Your task to perform on an android device: Clear the shopping cart on bestbuy.com. Search for razer blade on bestbuy.com, select the first entry, and add it to the cart. Image 0: 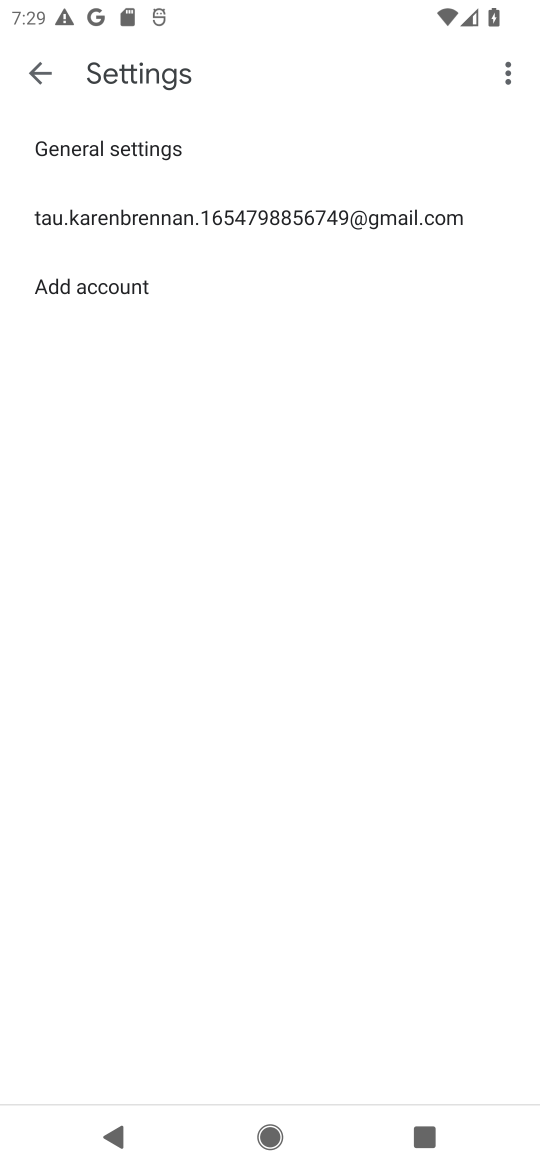
Step 0: press home button
Your task to perform on an android device: Clear the shopping cart on bestbuy.com. Search for razer blade on bestbuy.com, select the first entry, and add it to the cart. Image 1: 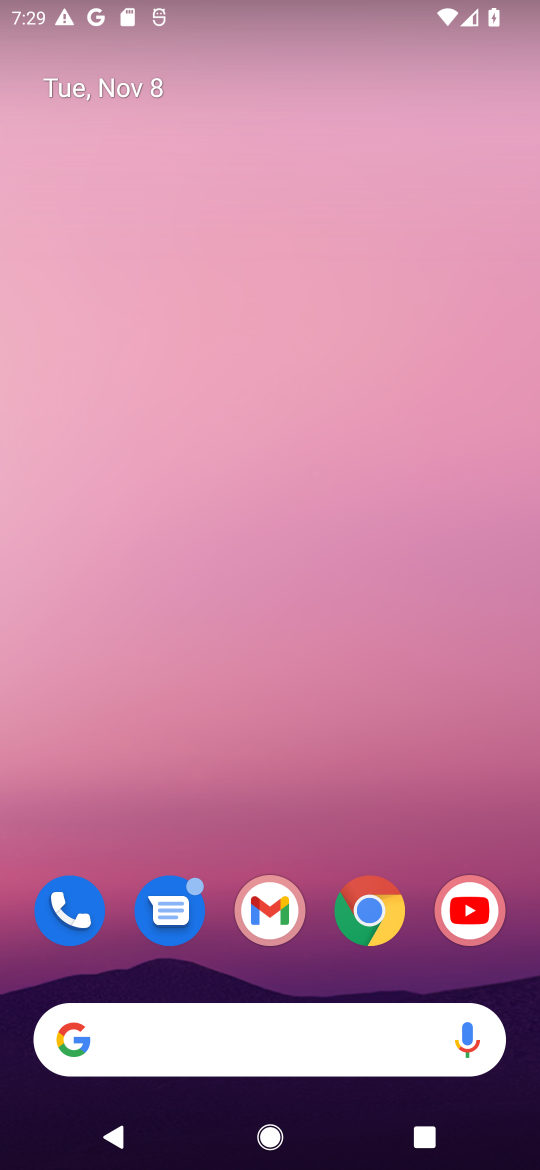
Step 1: click (367, 918)
Your task to perform on an android device: Clear the shopping cart on bestbuy.com. Search for razer blade on bestbuy.com, select the first entry, and add it to the cart. Image 2: 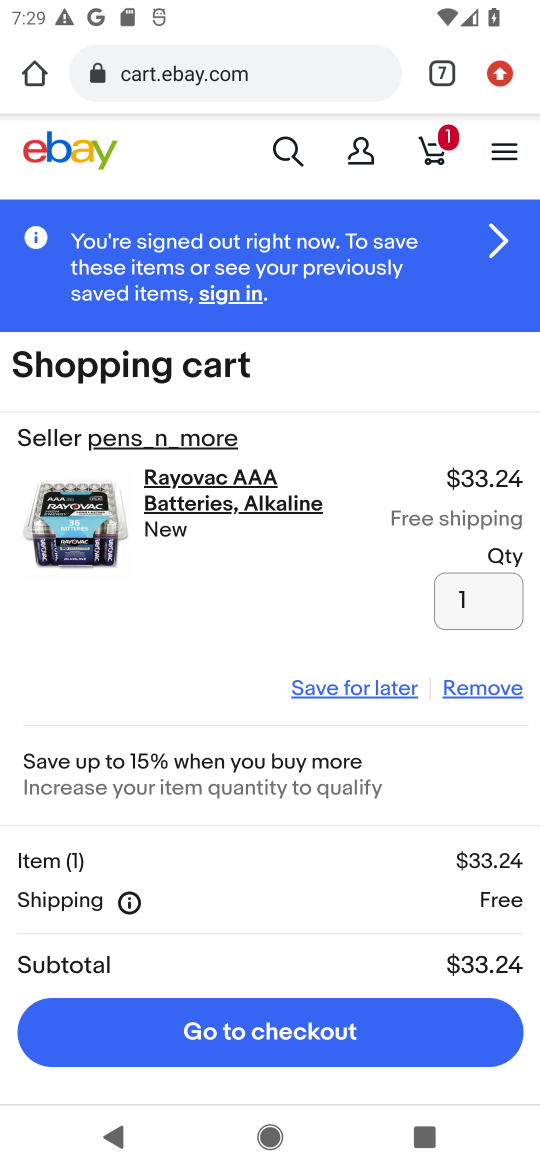
Step 2: click (438, 71)
Your task to perform on an android device: Clear the shopping cart on bestbuy.com. Search for razer blade on bestbuy.com, select the first entry, and add it to the cart. Image 3: 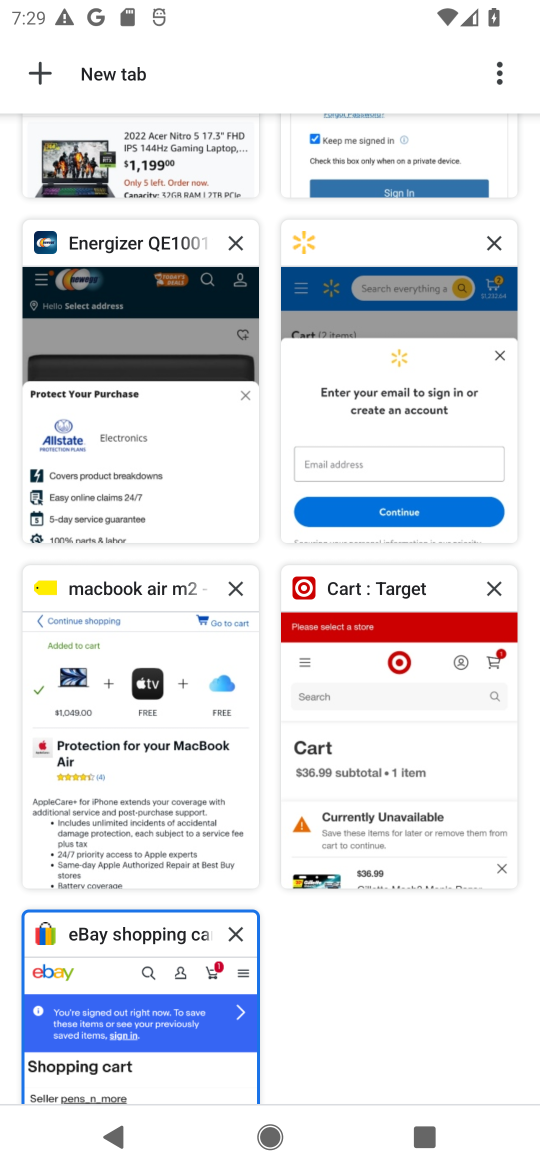
Step 3: click (166, 744)
Your task to perform on an android device: Clear the shopping cart on bestbuy.com. Search for razer blade on bestbuy.com, select the first entry, and add it to the cart. Image 4: 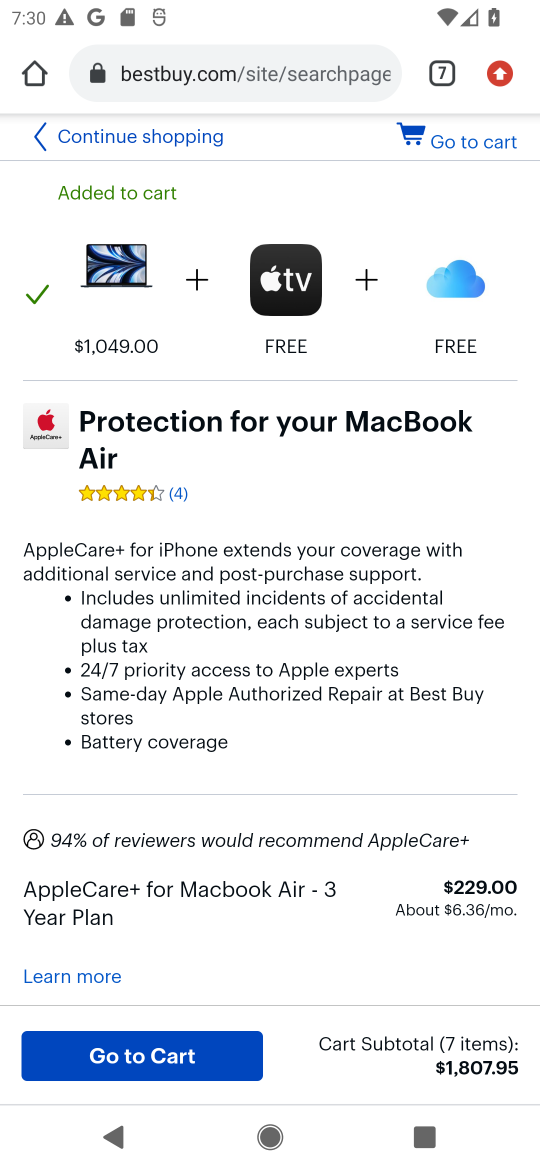
Step 4: click (189, 127)
Your task to perform on an android device: Clear the shopping cart on bestbuy.com. Search for razer blade on bestbuy.com, select the first entry, and add it to the cart. Image 5: 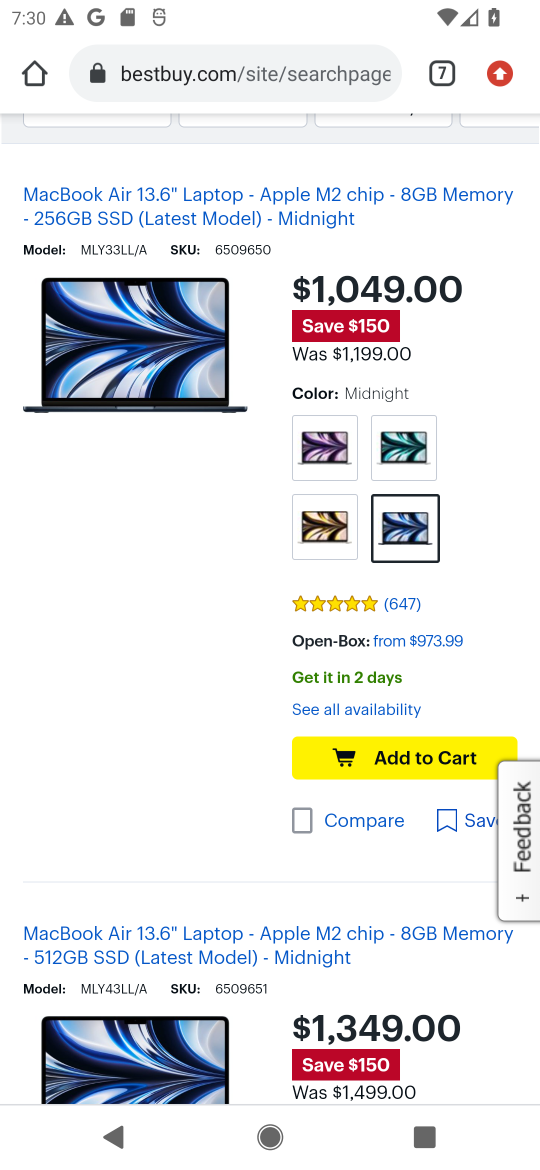
Step 5: drag from (409, 236) to (362, 794)
Your task to perform on an android device: Clear the shopping cart on bestbuy.com. Search for razer blade on bestbuy.com, select the first entry, and add it to the cart. Image 6: 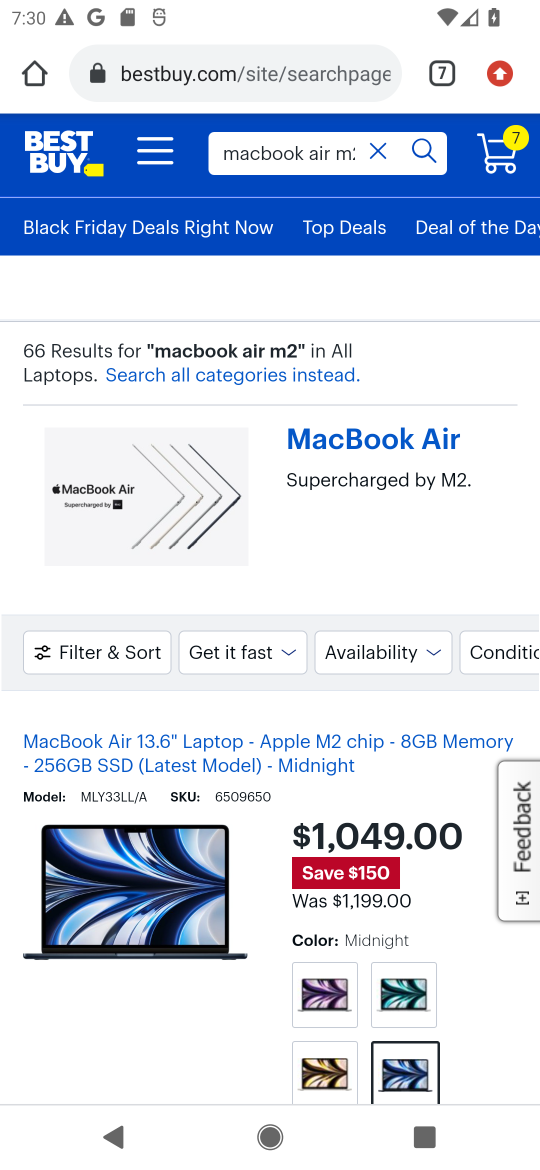
Step 6: click (379, 152)
Your task to perform on an android device: Clear the shopping cart on bestbuy.com. Search for razer blade on bestbuy.com, select the first entry, and add it to the cart. Image 7: 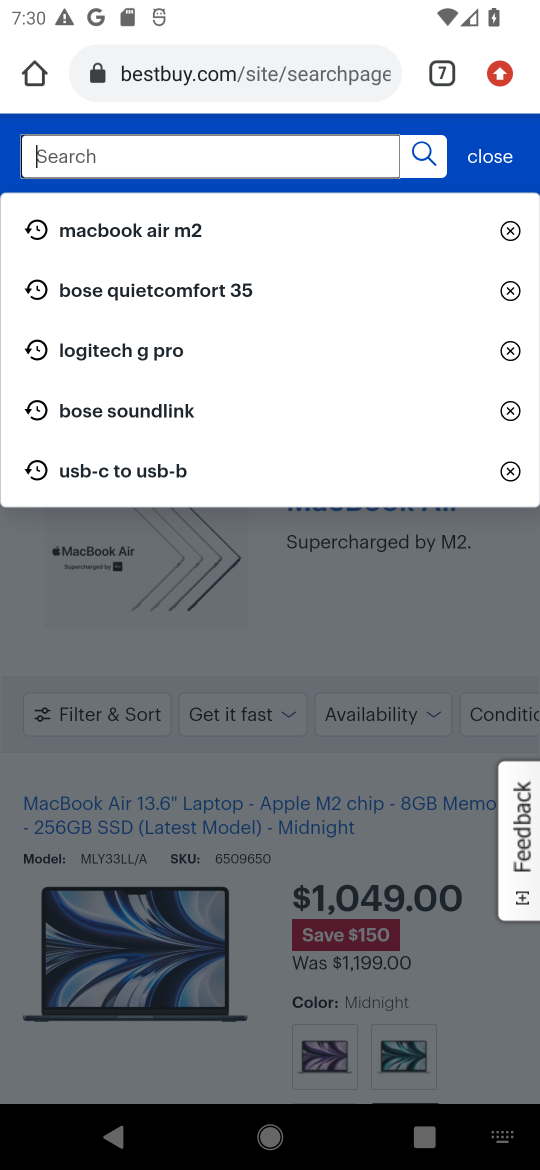
Step 7: type "razer blade"
Your task to perform on an android device: Clear the shopping cart on bestbuy.com. Search for razer blade on bestbuy.com, select the first entry, and add it to the cart. Image 8: 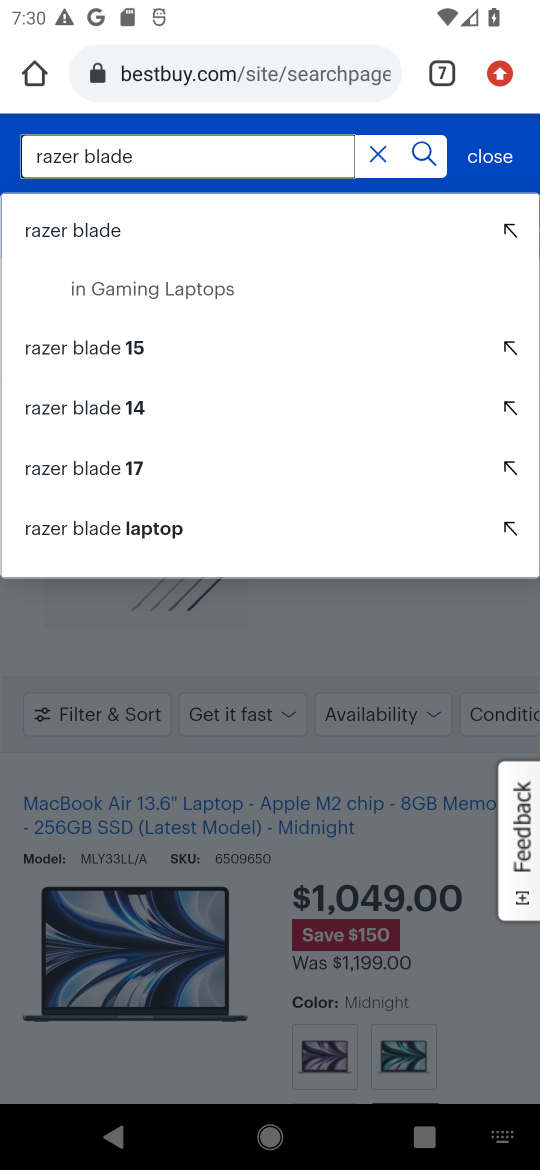
Step 8: click (95, 228)
Your task to perform on an android device: Clear the shopping cart on bestbuy.com. Search for razer blade on bestbuy.com, select the first entry, and add it to the cart. Image 9: 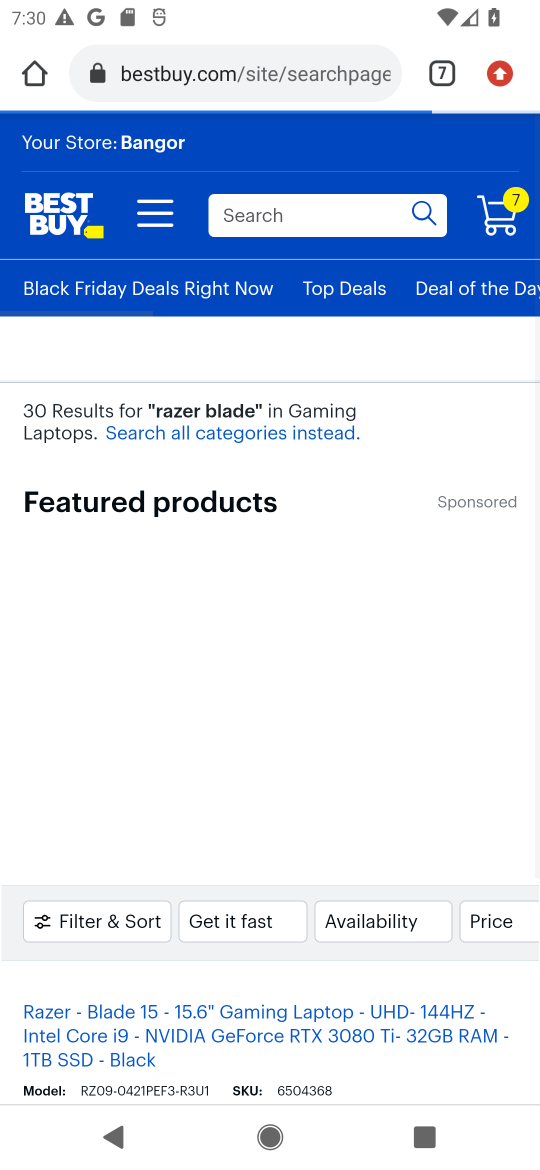
Step 9: click (423, 149)
Your task to perform on an android device: Clear the shopping cart on bestbuy.com. Search for razer blade on bestbuy.com, select the first entry, and add it to the cart. Image 10: 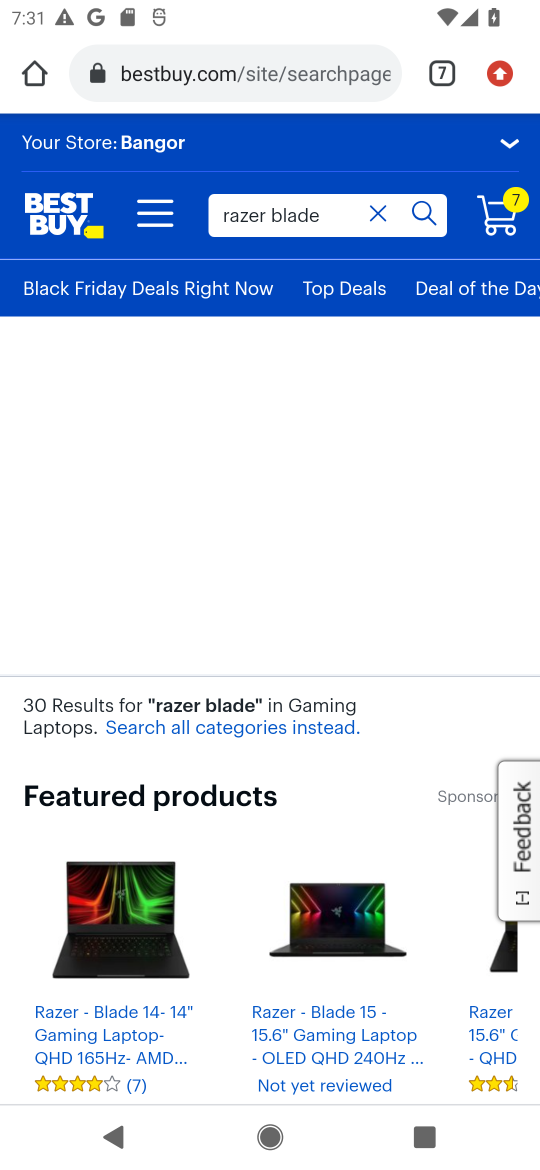
Step 10: click (158, 1014)
Your task to perform on an android device: Clear the shopping cart on bestbuy.com. Search for razer blade on bestbuy.com, select the first entry, and add it to the cart. Image 11: 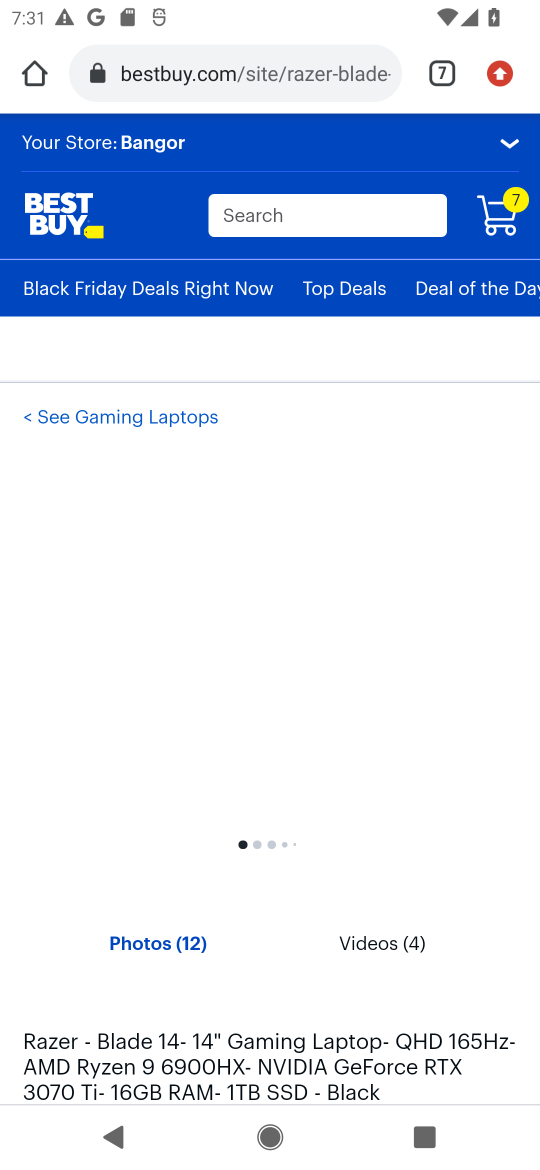
Step 11: drag from (230, 900) to (341, 421)
Your task to perform on an android device: Clear the shopping cart on bestbuy.com. Search for razer blade on bestbuy.com, select the first entry, and add it to the cart. Image 12: 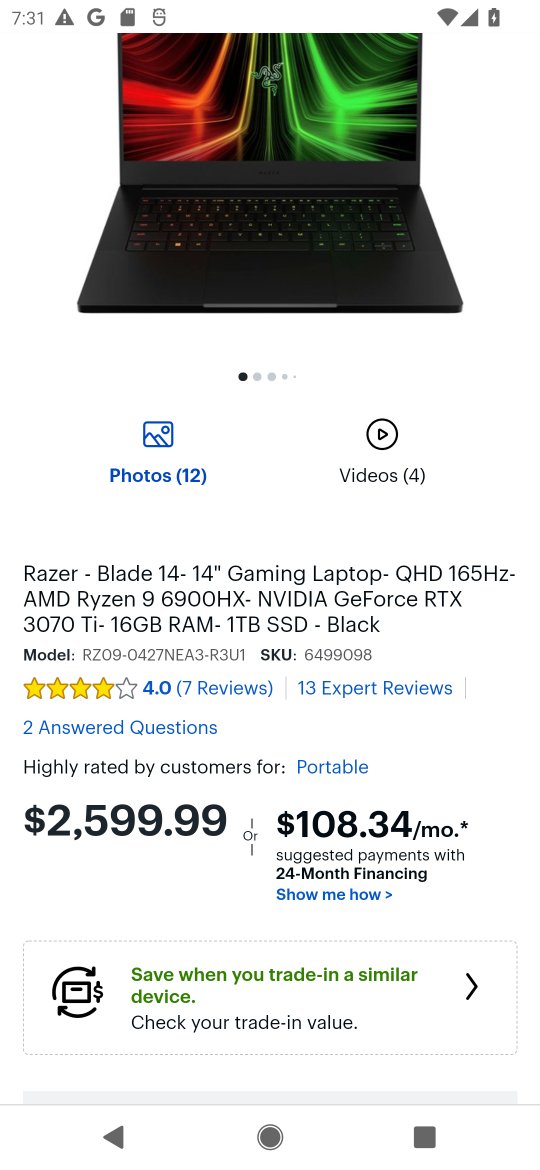
Step 12: drag from (384, 1044) to (434, 571)
Your task to perform on an android device: Clear the shopping cart on bestbuy.com. Search for razer blade on bestbuy.com, select the first entry, and add it to the cart. Image 13: 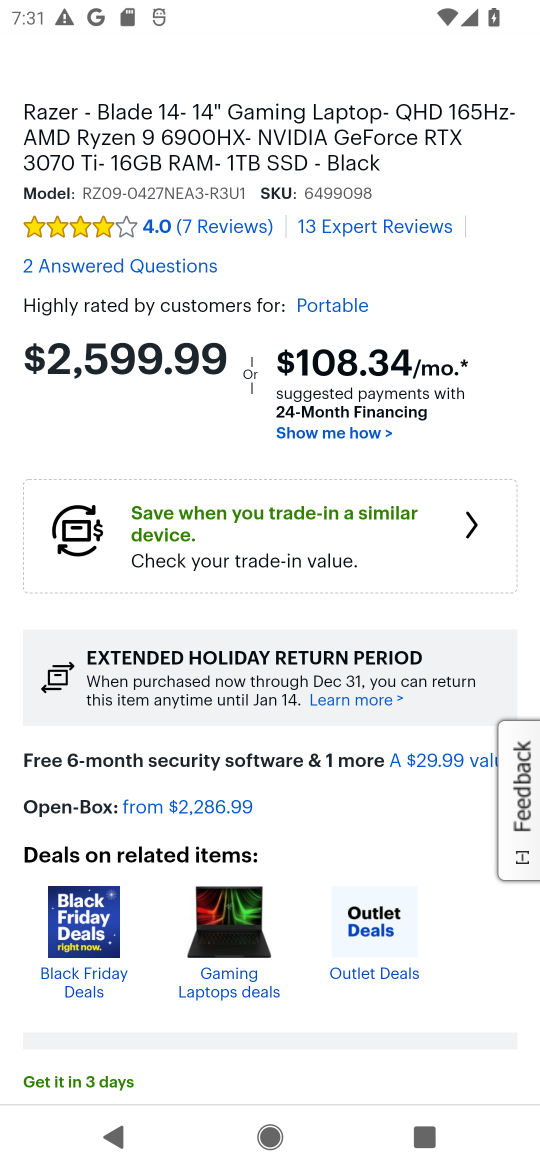
Step 13: drag from (353, 830) to (438, 383)
Your task to perform on an android device: Clear the shopping cart on bestbuy.com. Search for razer blade on bestbuy.com, select the first entry, and add it to the cart. Image 14: 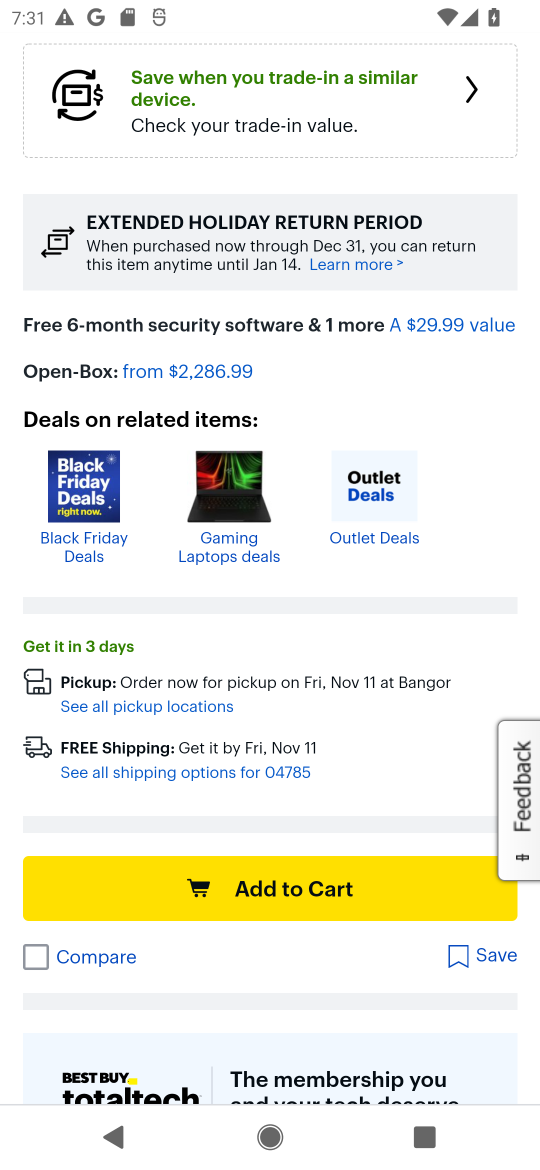
Step 14: click (321, 902)
Your task to perform on an android device: Clear the shopping cart on bestbuy.com. Search for razer blade on bestbuy.com, select the first entry, and add it to the cart. Image 15: 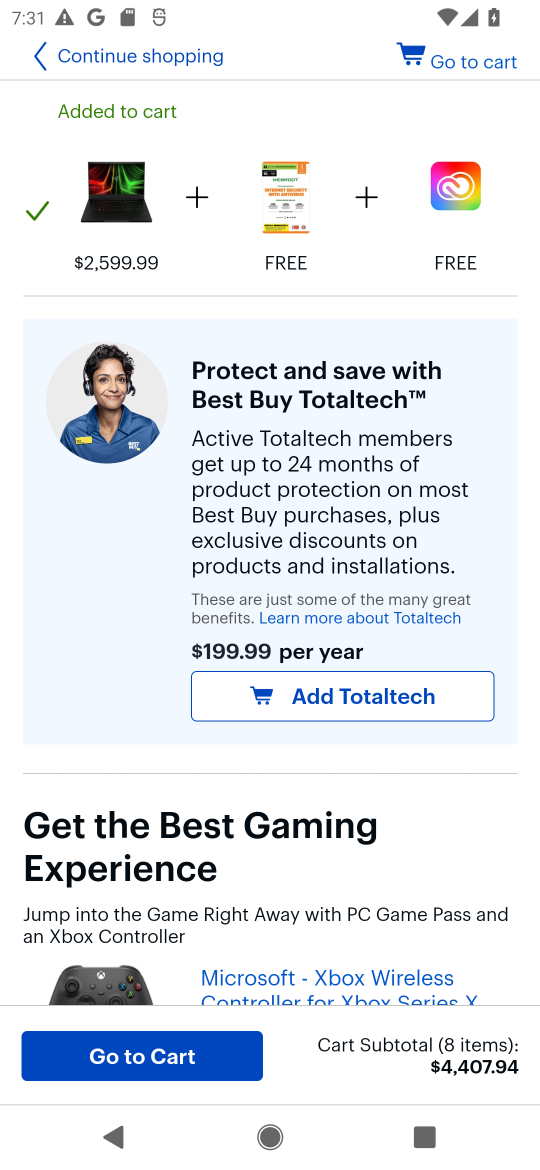
Step 15: click (215, 1063)
Your task to perform on an android device: Clear the shopping cart on bestbuy.com. Search for razer blade on bestbuy.com, select the first entry, and add it to the cart. Image 16: 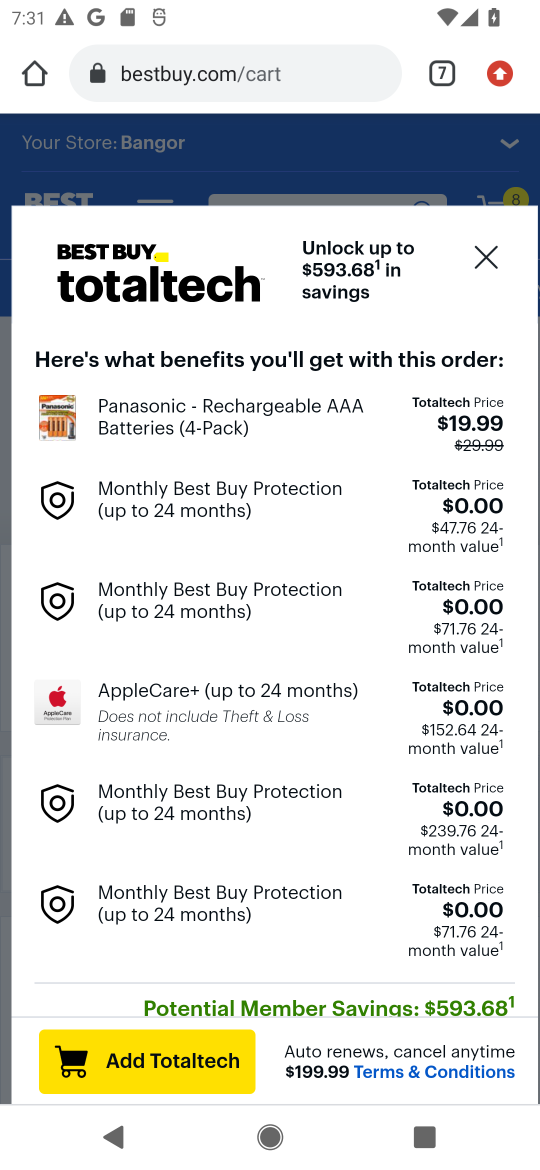
Step 16: click (466, 256)
Your task to perform on an android device: Clear the shopping cart on bestbuy.com. Search for razer blade on bestbuy.com, select the first entry, and add it to the cart. Image 17: 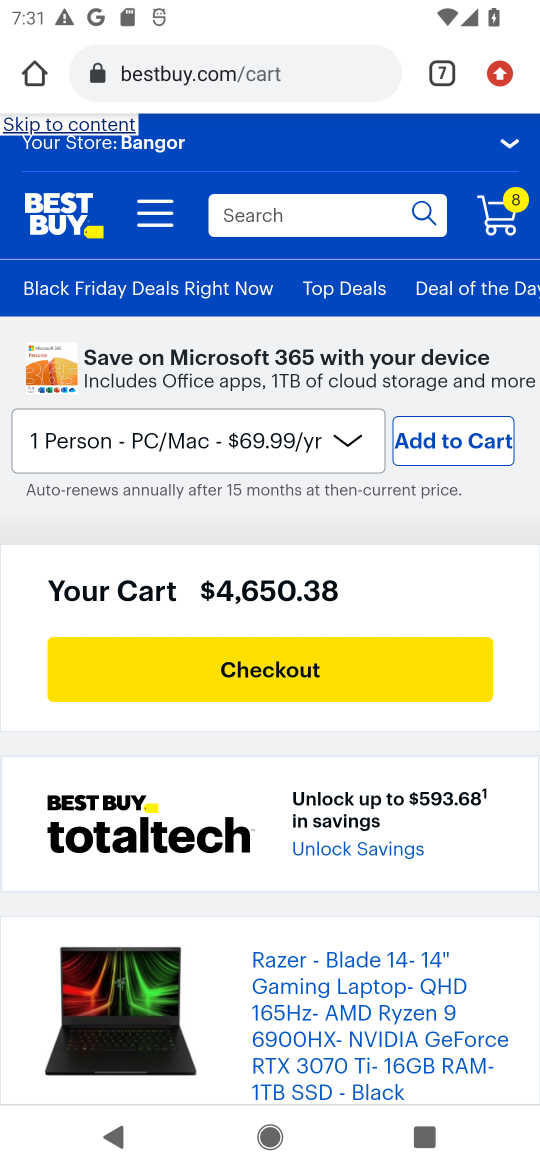
Step 17: click (484, 258)
Your task to perform on an android device: Clear the shopping cart on bestbuy.com. Search for razer blade on bestbuy.com, select the first entry, and add it to the cart. Image 18: 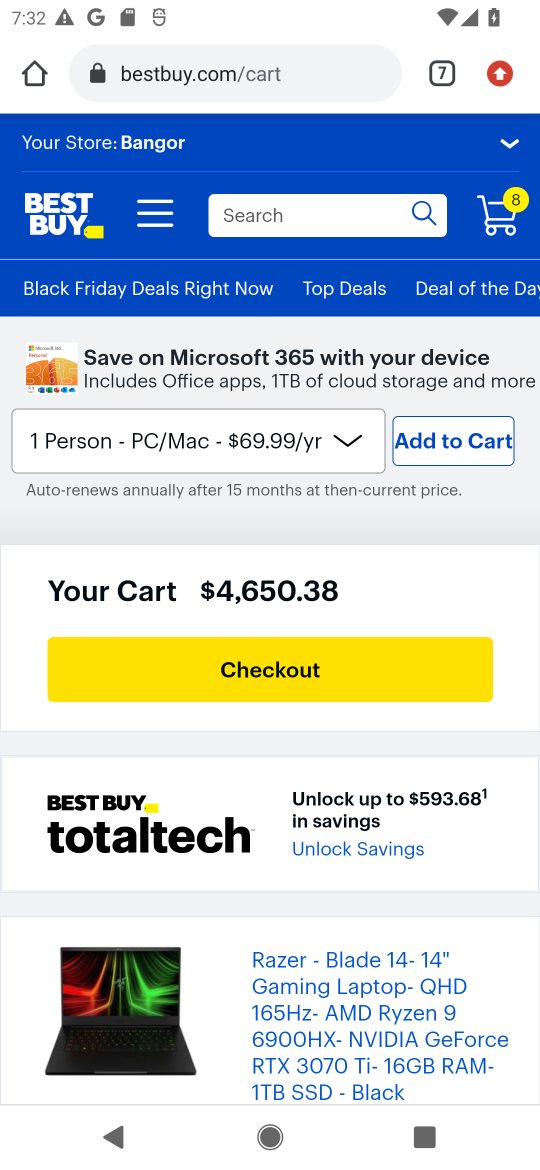
Step 18: drag from (291, 937) to (437, 349)
Your task to perform on an android device: Clear the shopping cart on bestbuy.com. Search for razer blade on bestbuy.com, select the first entry, and add it to the cart. Image 19: 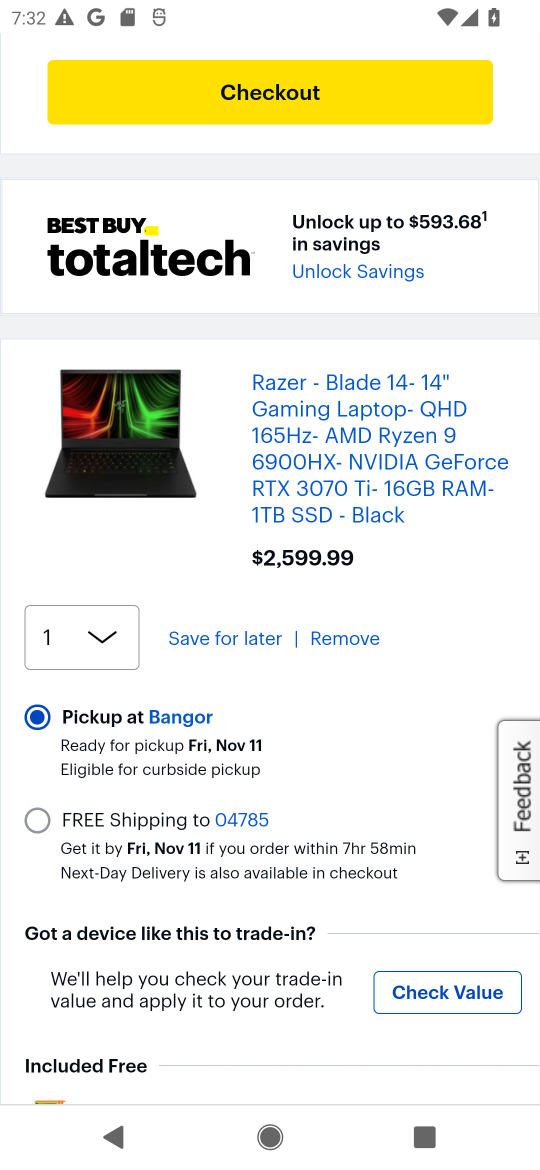
Step 19: drag from (408, 897) to (454, 400)
Your task to perform on an android device: Clear the shopping cart on bestbuy.com. Search for razer blade on bestbuy.com, select the first entry, and add it to the cart. Image 20: 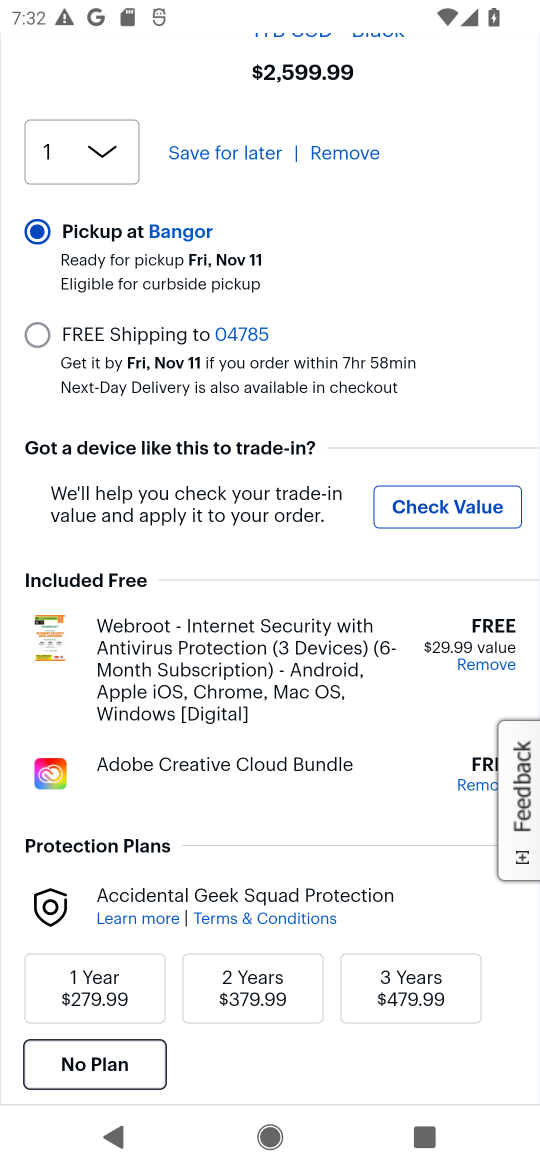
Step 20: click (356, 308)
Your task to perform on an android device: Clear the shopping cart on bestbuy.com. Search for razer blade on bestbuy.com, select the first entry, and add it to the cart. Image 21: 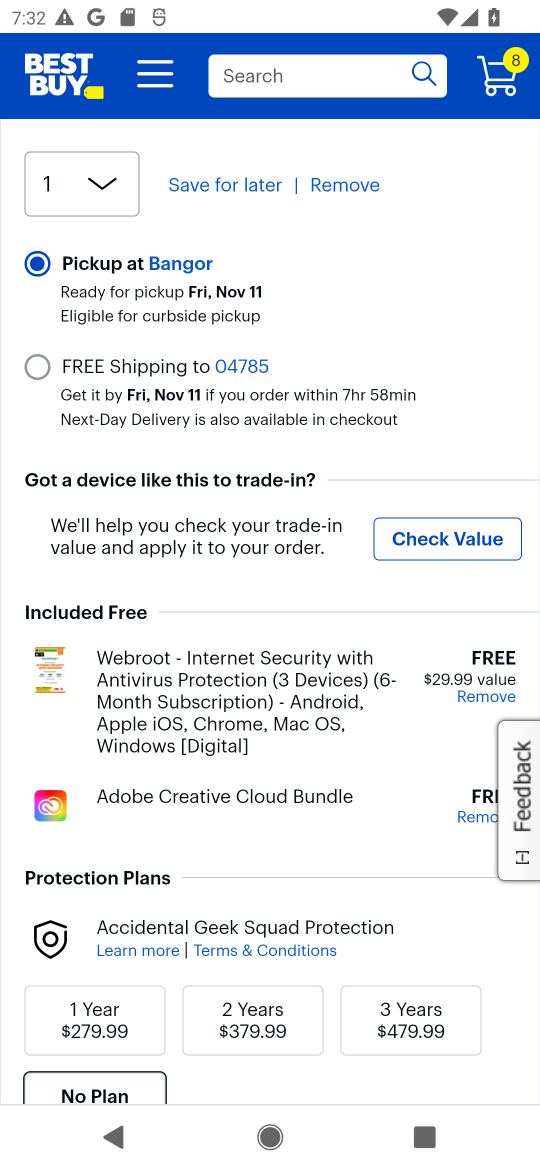
Step 21: drag from (291, 823) to (344, 238)
Your task to perform on an android device: Clear the shopping cart on bestbuy.com. Search for razer blade on bestbuy.com, select the first entry, and add it to the cart. Image 22: 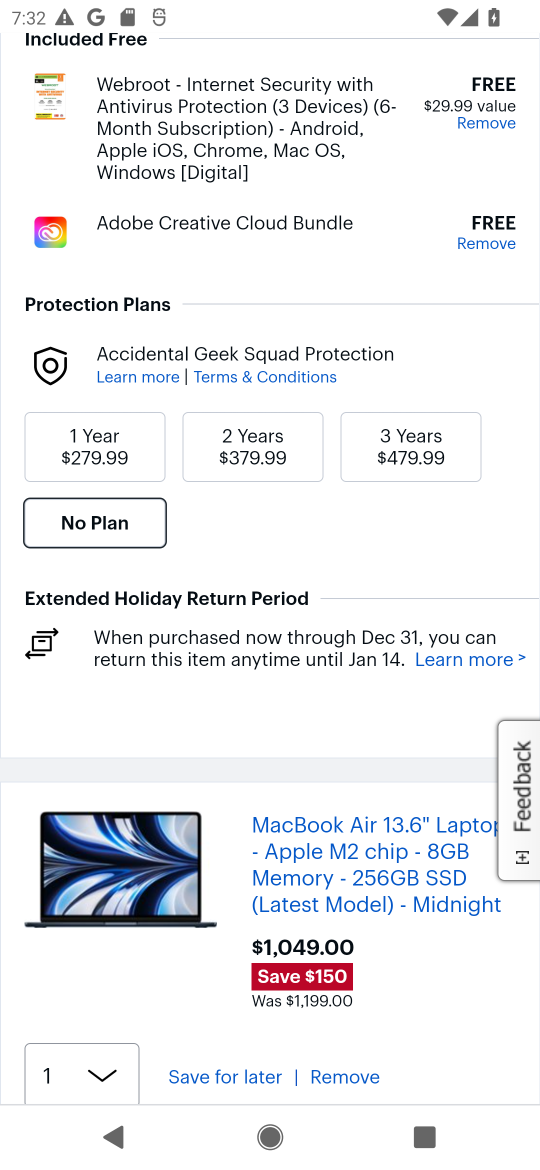
Step 22: click (329, 1075)
Your task to perform on an android device: Clear the shopping cart on bestbuy.com. Search for razer blade on bestbuy.com, select the first entry, and add it to the cart. Image 23: 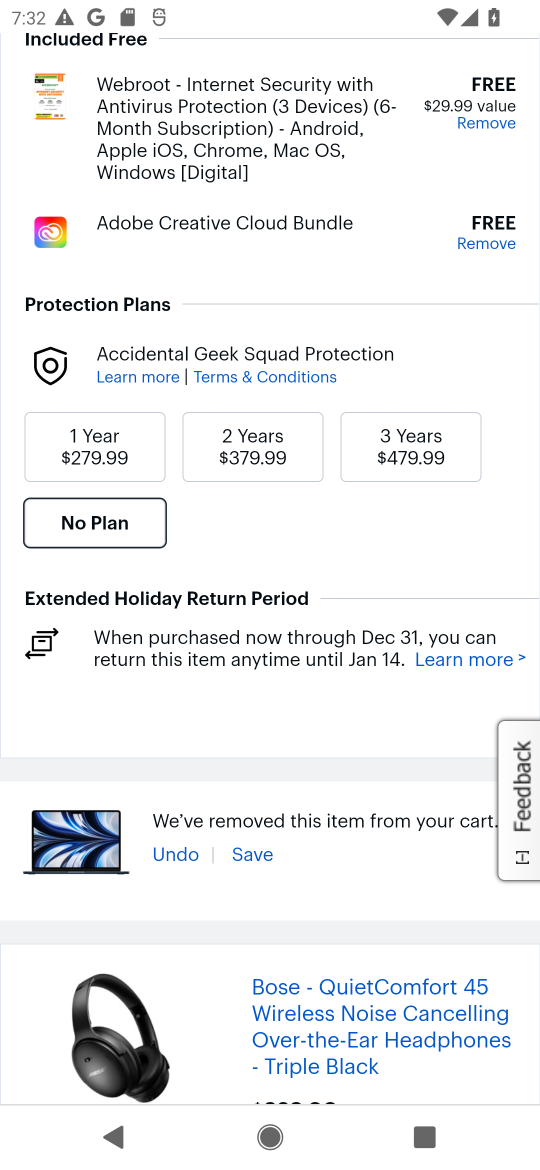
Step 23: drag from (329, 1075) to (405, 537)
Your task to perform on an android device: Clear the shopping cart on bestbuy.com. Search for razer blade on bestbuy.com, select the first entry, and add it to the cart. Image 24: 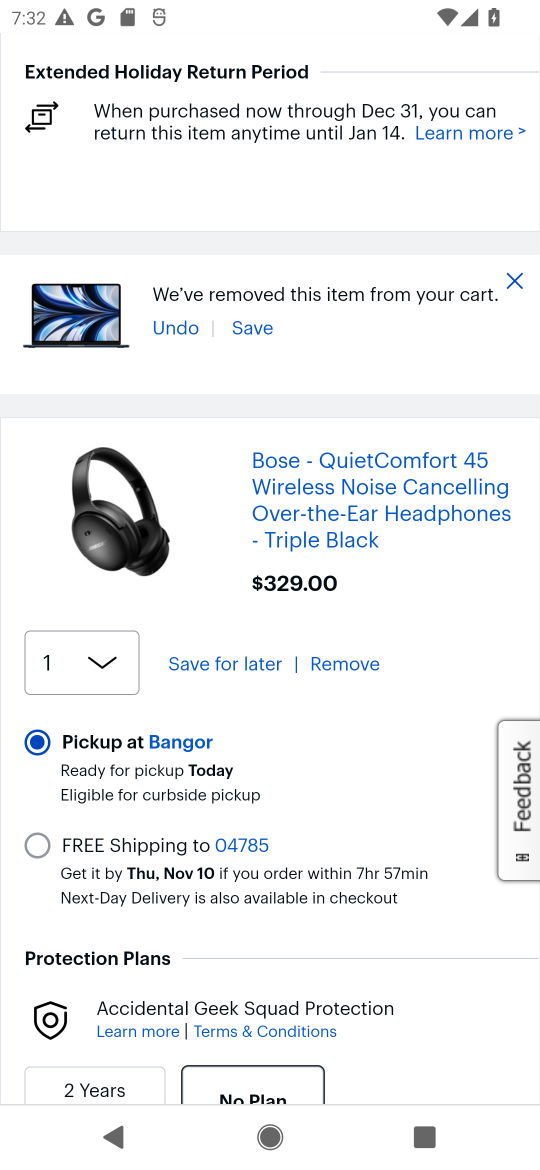
Step 24: click (334, 663)
Your task to perform on an android device: Clear the shopping cart on bestbuy.com. Search for razer blade on bestbuy.com, select the first entry, and add it to the cart. Image 25: 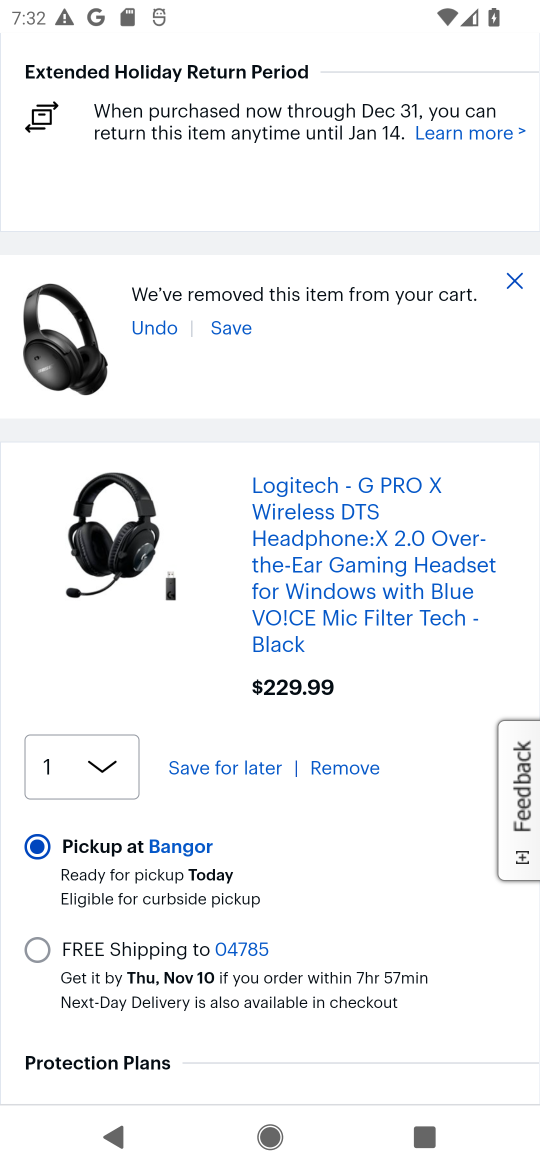
Step 25: click (341, 760)
Your task to perform on an android device: Clear the shopping cart on bestbuy.com. Search for razer blade on bestbuy.com, select the first entry, and add it to the cart. Image 26: 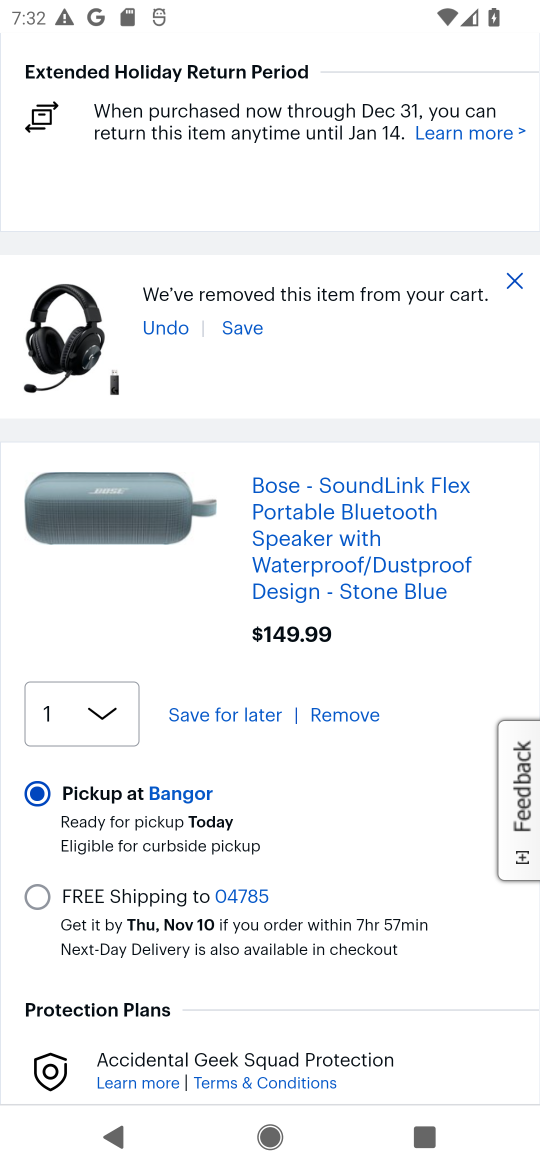
Step 26: click (350, 708)
Your task to perform on an android device: Clear the shopping cart on bestbuy.com. Search for razer blade on bestbuy.com, select the first entry, and add it to the cart. Image 27: 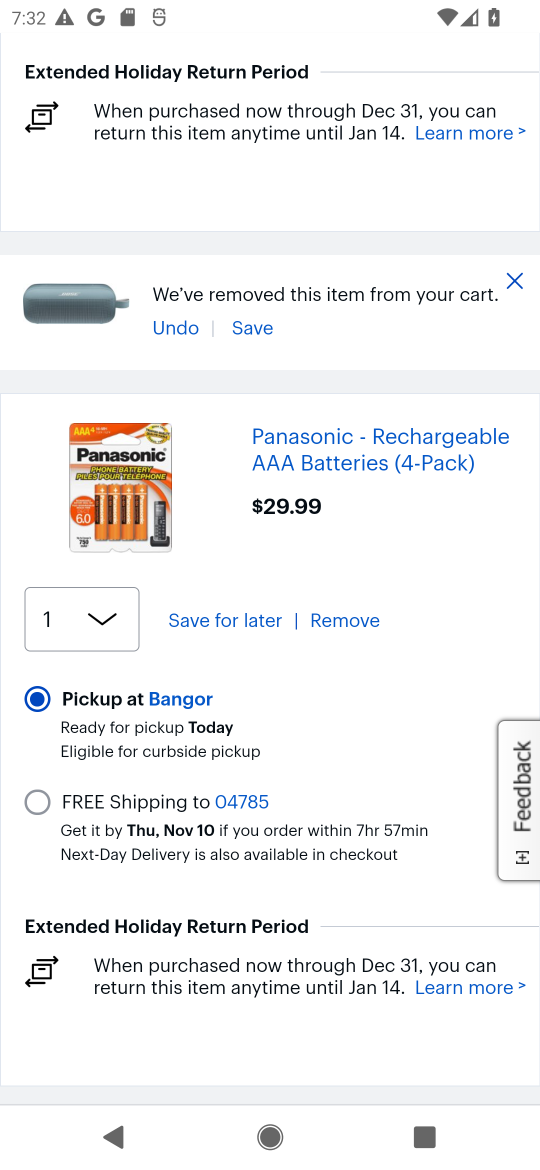
Step 27: click (346, 614)
Your task to perform on an android device: Clear the shopping cart on bestbuy.com. Search for razer blade on bestbuy.com, select the first entry, and add it to the cart. Image 28: 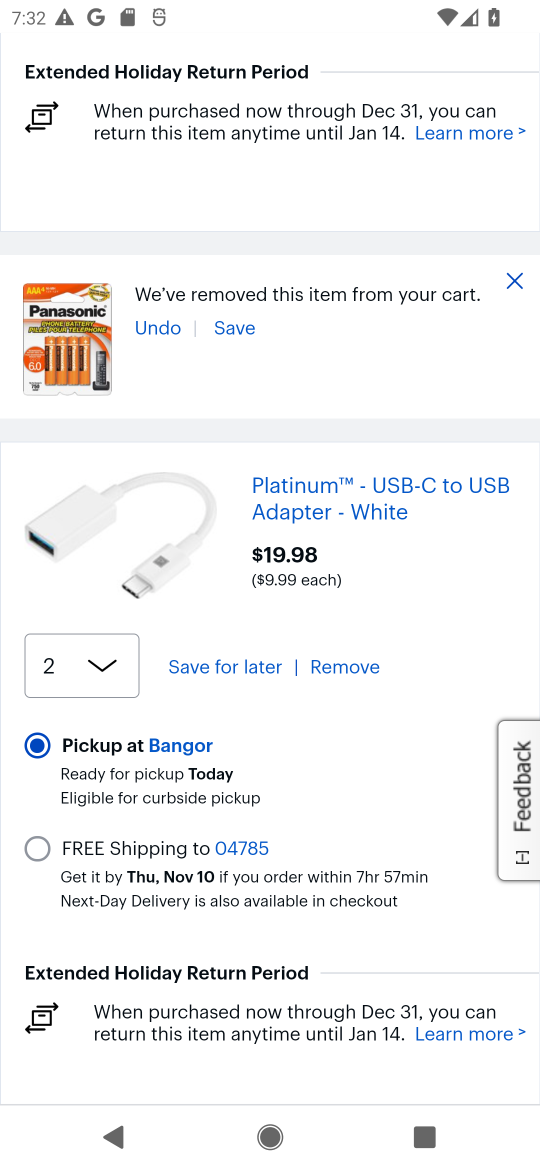
Step 28: click (341, 662)
Your task to perform on an android device: Clear the shopping cart on bestbuy.com. Search for razer blade on bestbuy.com, select the first entry, and add it to the cart. Image 29: 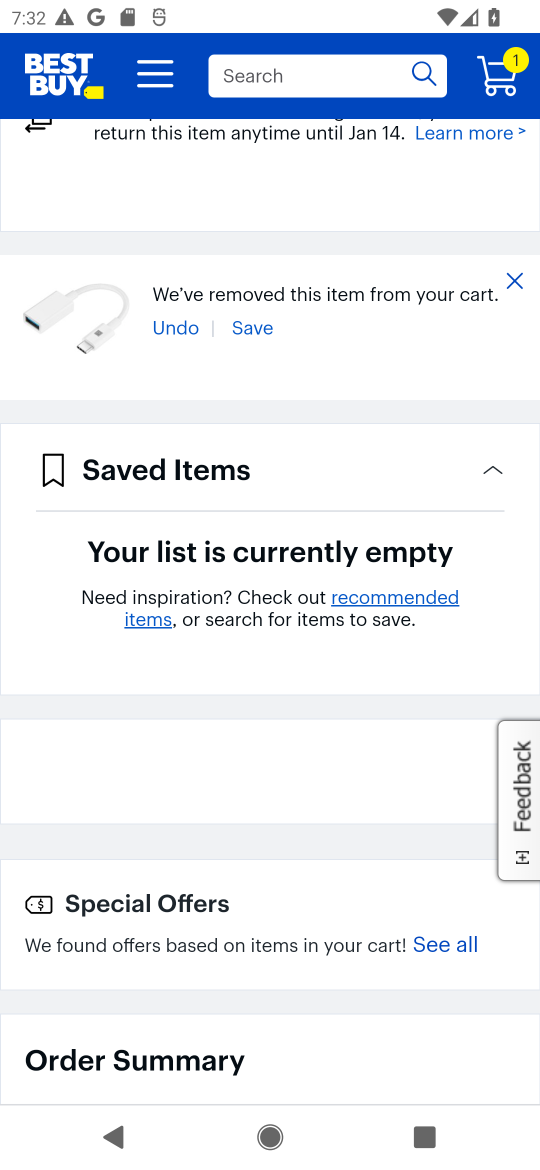
Step 29: task complete